Your task to perform on an android device: uninstall "Pinterest" Image 0: 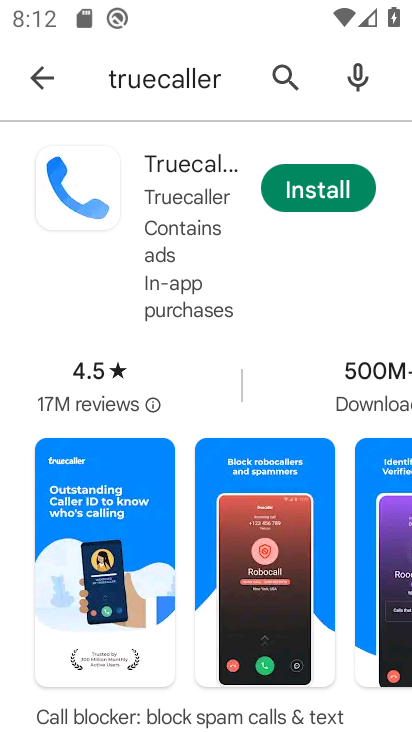
Step 0: press home button
Your task to perform on an android device: uninstall "Pinterest" Image 1: 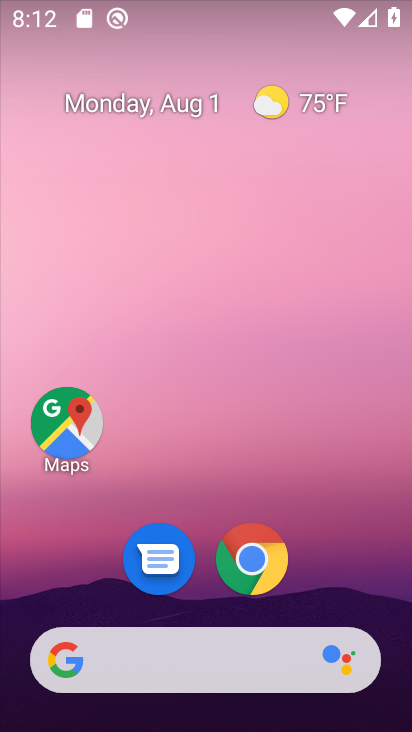
Step 1: drag from (199, 630) to (202, 406)
Your task to perform on an android device: uninstall "Pinterest" Image 2: 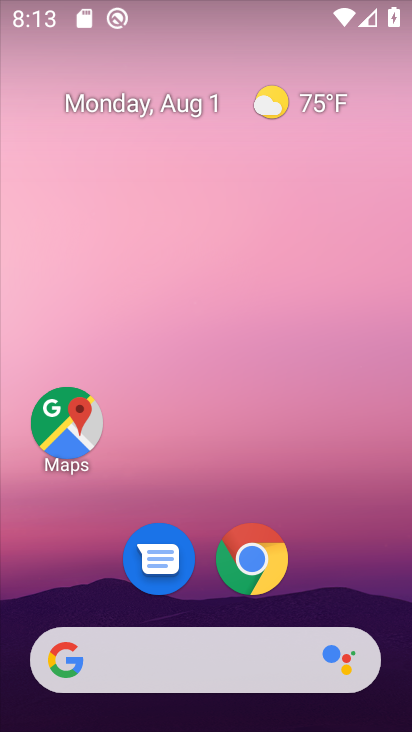
Step 2: drag from (185, 637) to (205, 384)
Your task to perform on an android device: uninstall "Pinterest" Image 3: 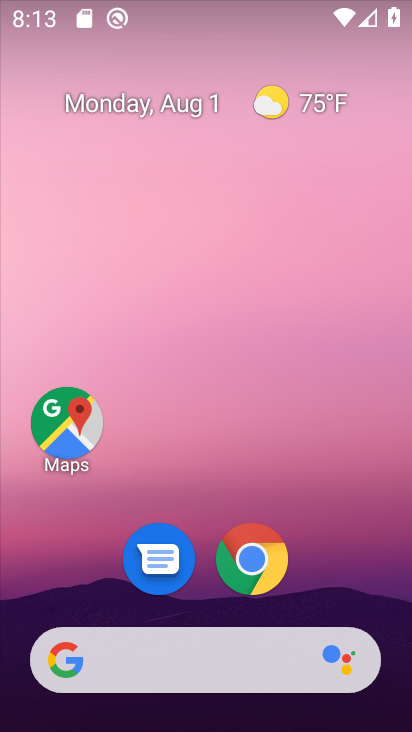
Step 3: drag from (164, 669) to (215, 234)
Your task to perform on an android device: uninstall "Pinterest" Image 4: 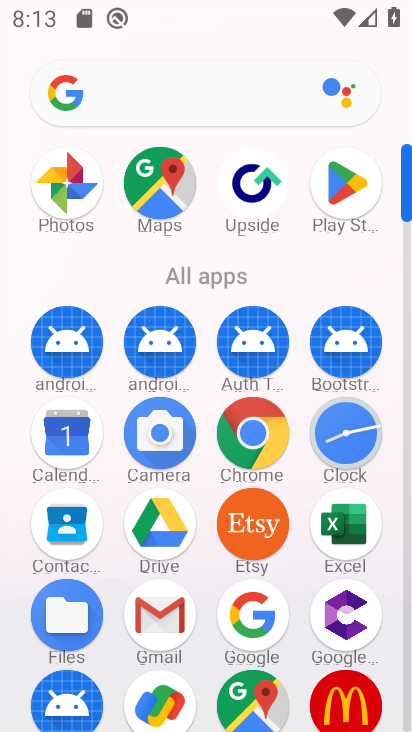
Step 4: click (330, 191)
Your task to perform on an android device: uninstall "Pinterest" Image 5: 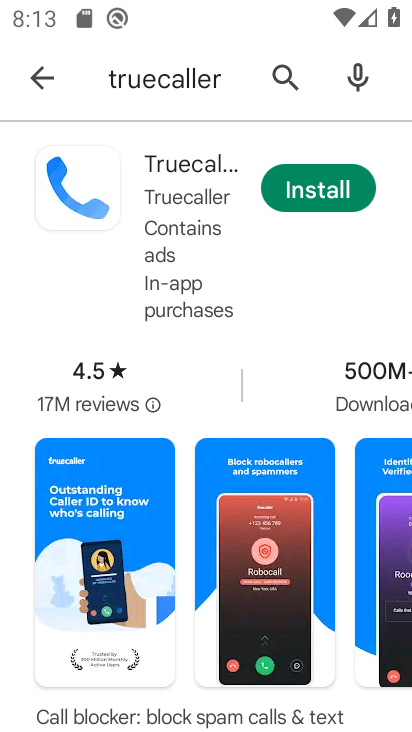
Step 5: click (286, 86)
Your task to perform on an android device: uninstall "Pinterest" Image 6: 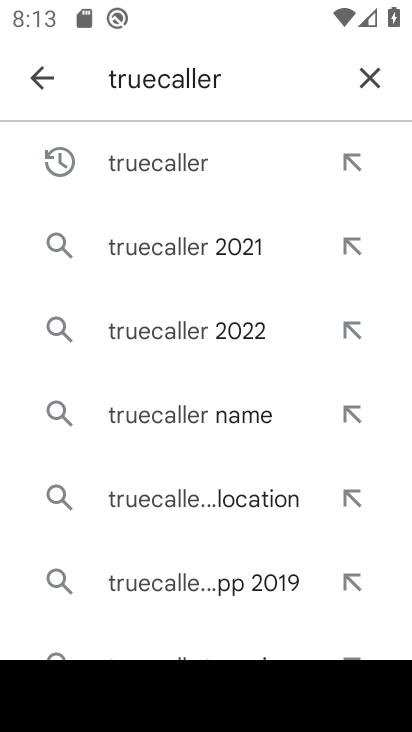
Step 6: click (367, 83)
Your task to perform on an android device: uninstall "Pinterest" Image 7: 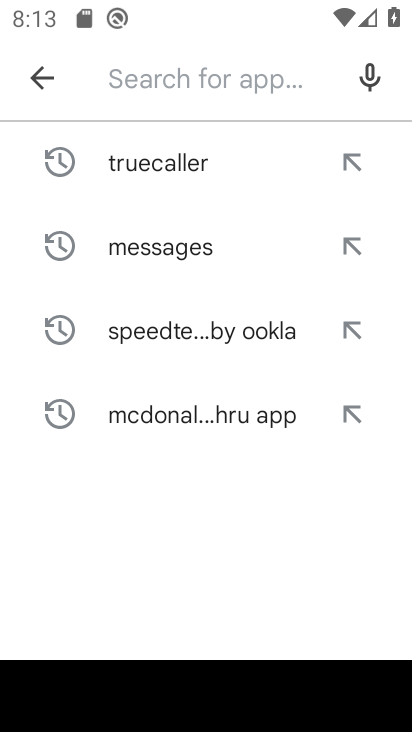
Step 7: type "pinterest"
Your task to perform on an android device: uninstall "Pinterest" Image 8: 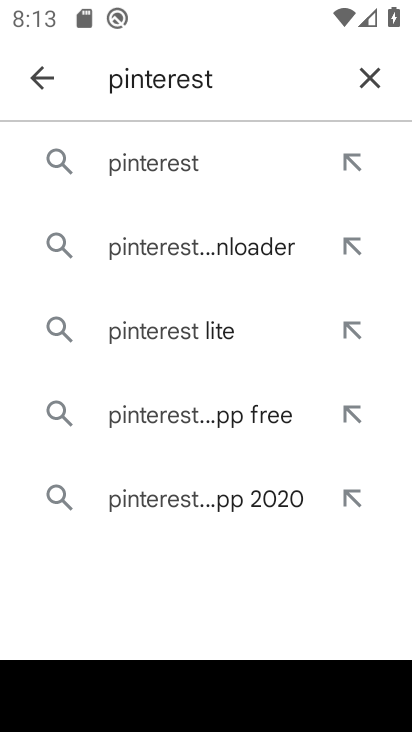
Step 8: click (192, 162)
Your task to perform on an android device: uninstall "Pinterest" Image 9: 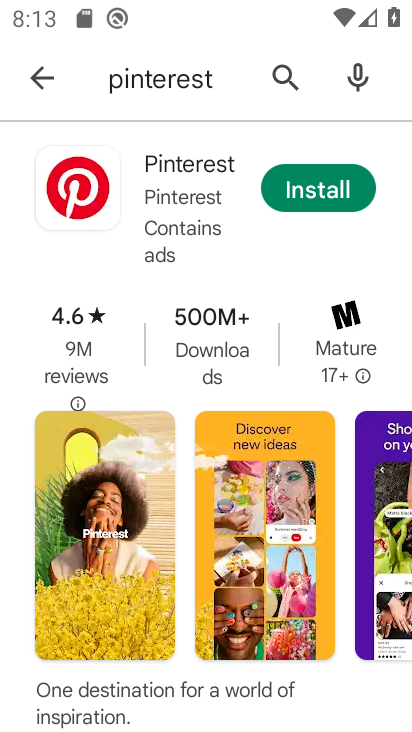
Step 9: task complete